Your task to perform on an android device: open wifi settings Image 0: 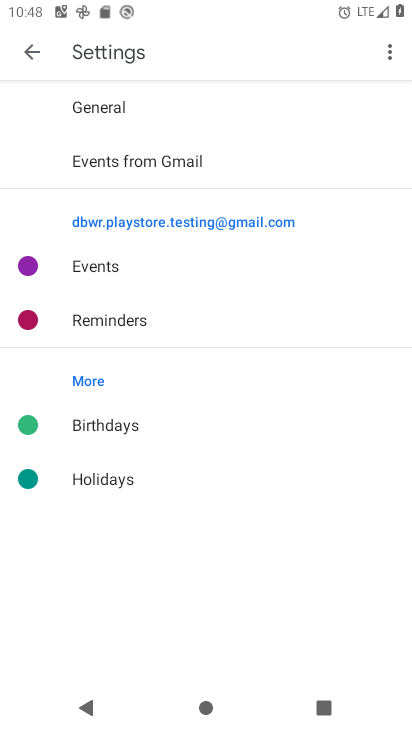
Step 0: press home button
Your task to perform on an android device: open wifi settings Image 1: 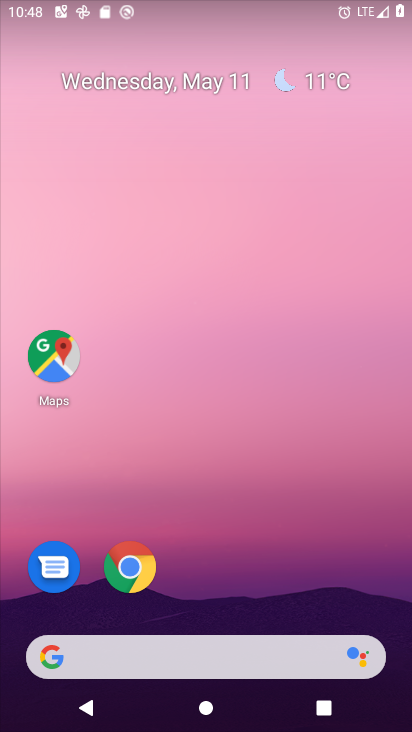
Step 1: drag from (249, 544) to (208, 163)
Your task to perform on an android device: open wifi settings Image 2: 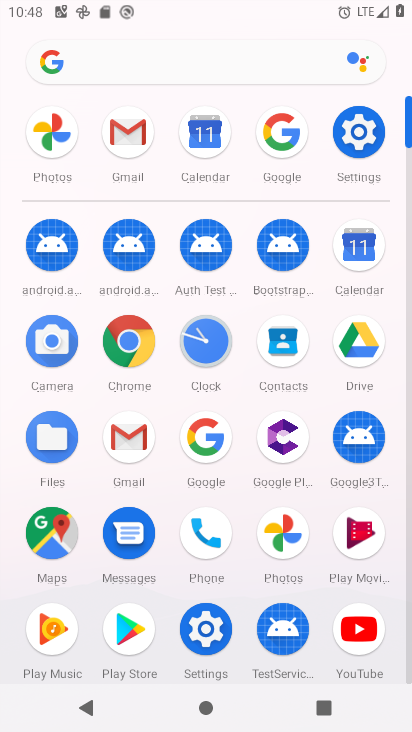
Step 2: click (353, 147)
Your task to perform on an android device: open wifi settings Image 3: 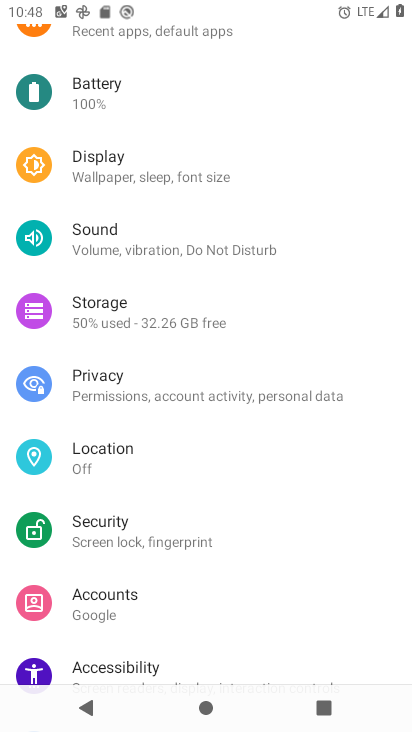
Step 3: drag from (160, 130) to (171, 625)
Your task to perform on an android device: open wifi settings Image 4: 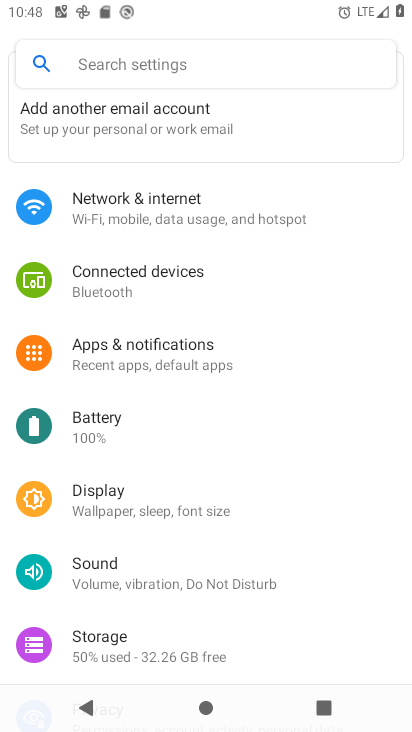
Step 4: click (148, 220)
Your task to perform on an android device: open wifi settings Image 5: 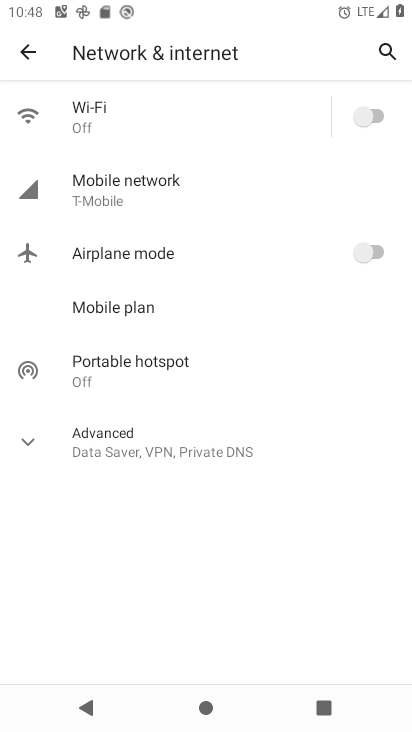
Step 5: click (148, 120)
Your task to perform on an android device: open wifi settings Image 6: 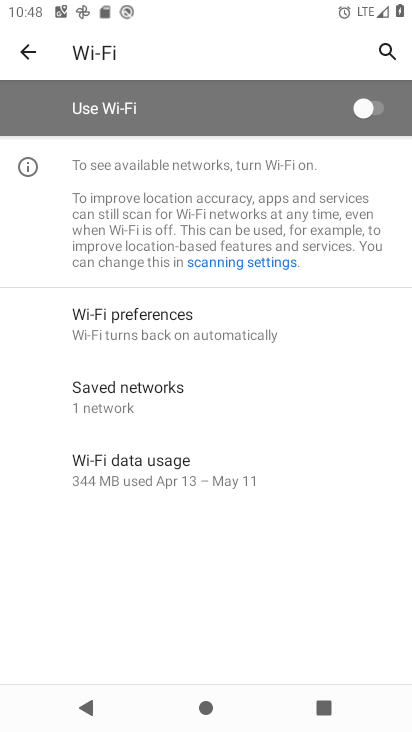
Step 6: task complete